Your task to perform on an android device: find which apps use the phone's location Image 0: 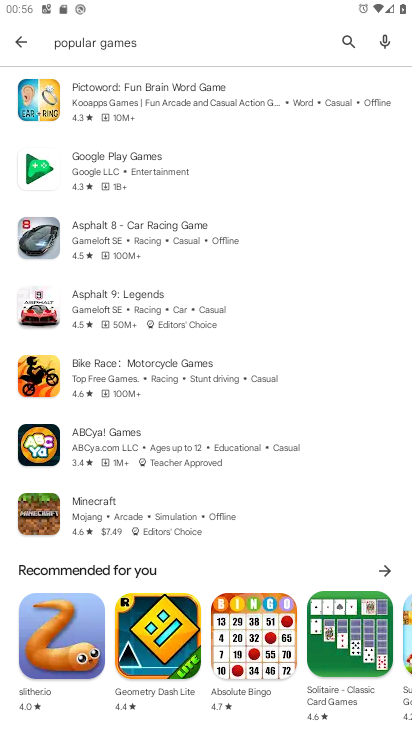
Step 0: press home button
Your task to perform on an android device: find which apps use the phone's location Image 1: 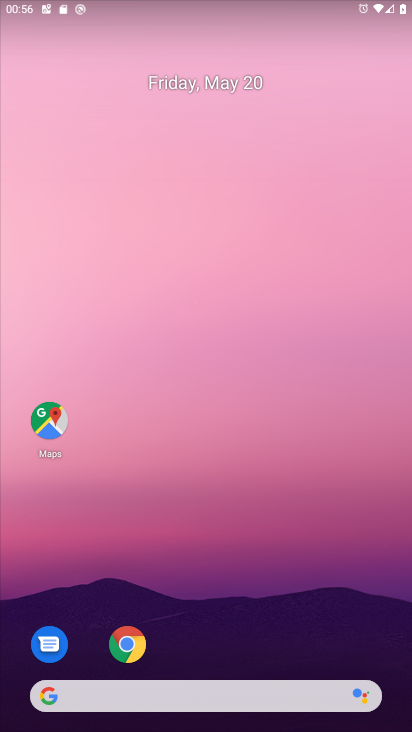
Step 1: drag from (200, 690) to (272, 329)
Your task to perform on an android device: find which apps use the phone's location Image 2: 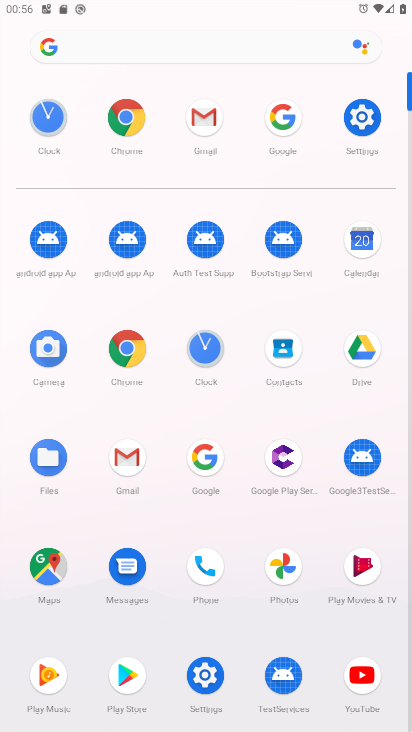
Step 2: click (377, 107)
Your task to perform on an android device: find which apps use the phone's location Image 3: 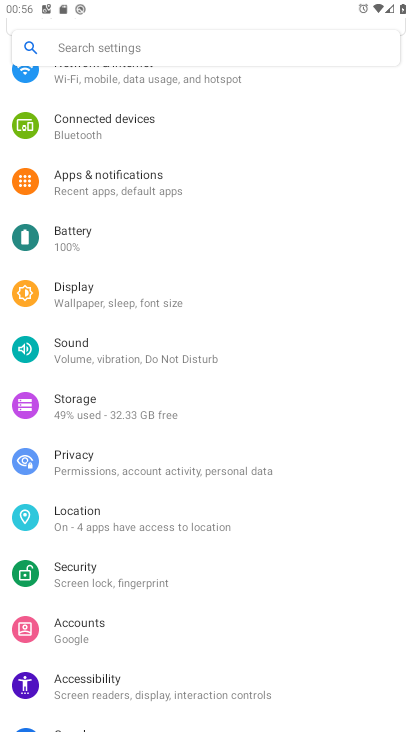
Step 3: click (100, 511)
Your task to perform on an android device: find which apps use the phone's location Image 4: 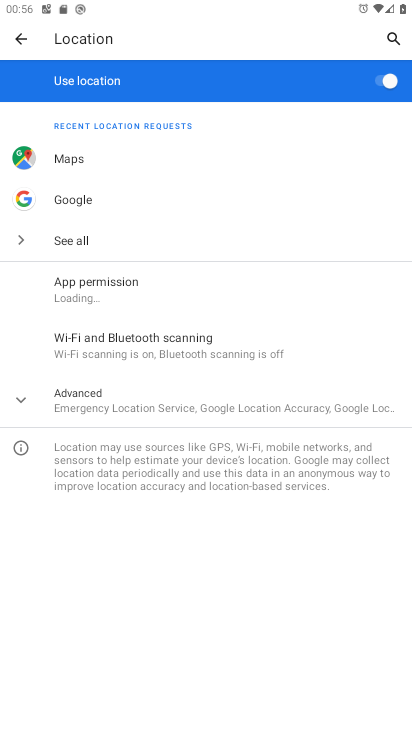
Step 4: click (94, 284)
Your task to perform on an android device: find which apps use the phone's location Image 5: 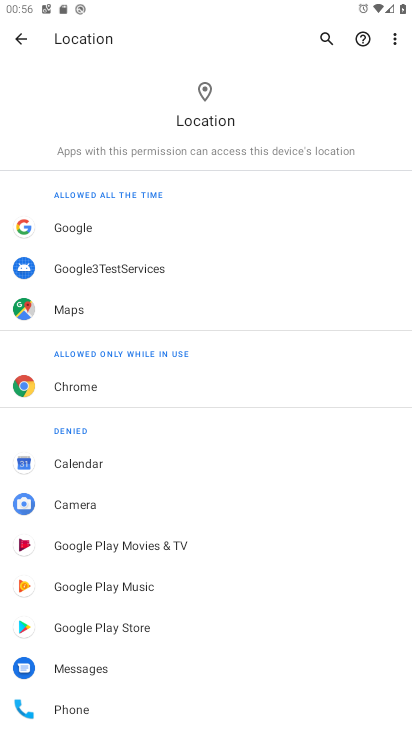
Step 5: task complete